Your task to perform on an android device: turn on data saver in the chrome app Image 0: 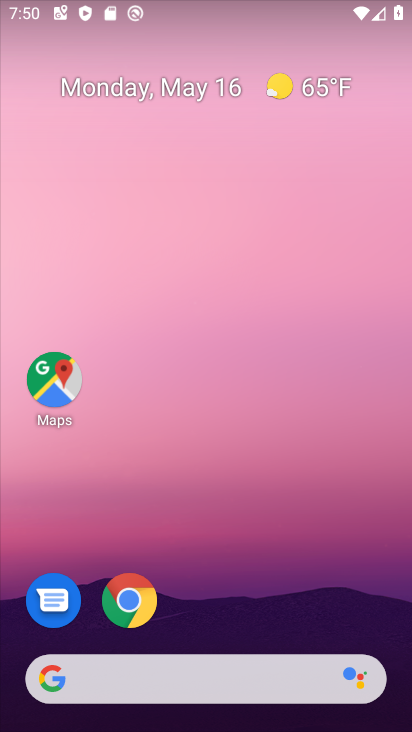
Step 0: drag from (183, 633) to (264, 144)
Your task to perform on an android device: turn on data saver in the chrome app Image 1: 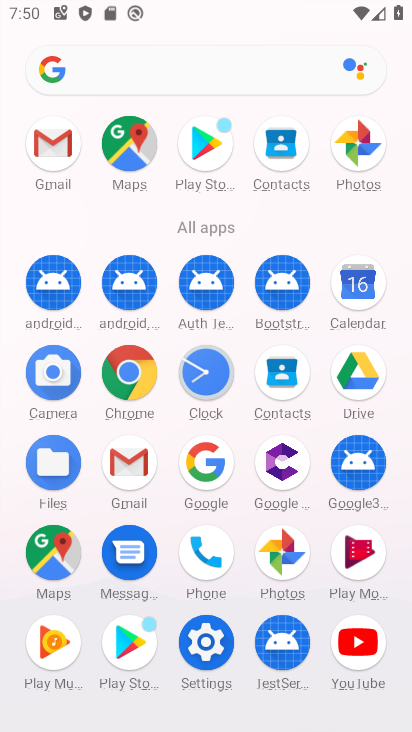
Step 1: click (120, 375)
Your task to perform on an android device: turn on data saver in the chrome app Image 2: 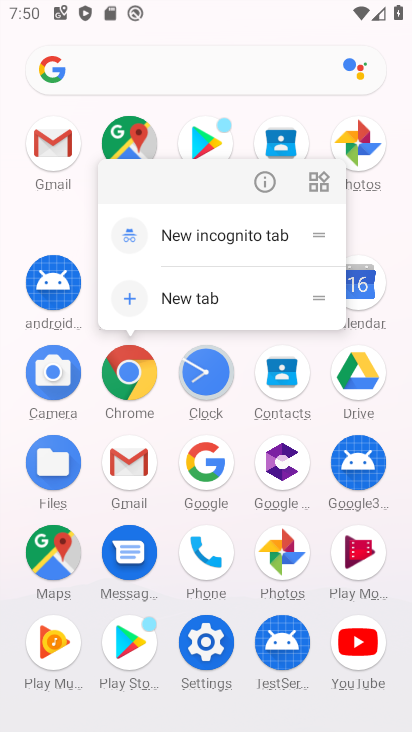
Step 2: click (266, 175)
Your task to perform on an android device: turn on data saver in the chrome app Image 3: 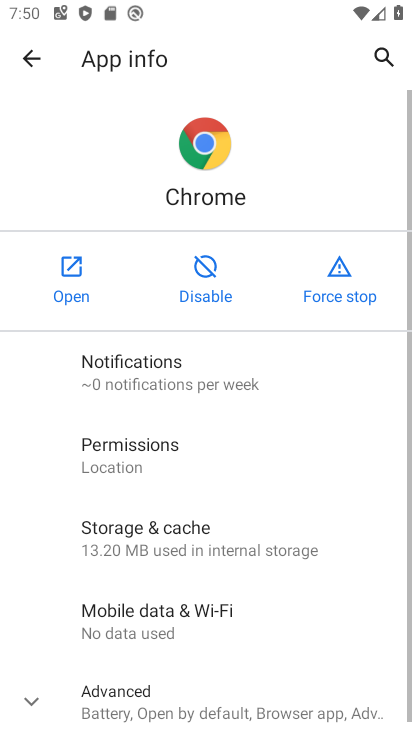
Step 3: click (82, 272)
Your task to perform on an android device: turn on data saver in the chrome app Image 4: 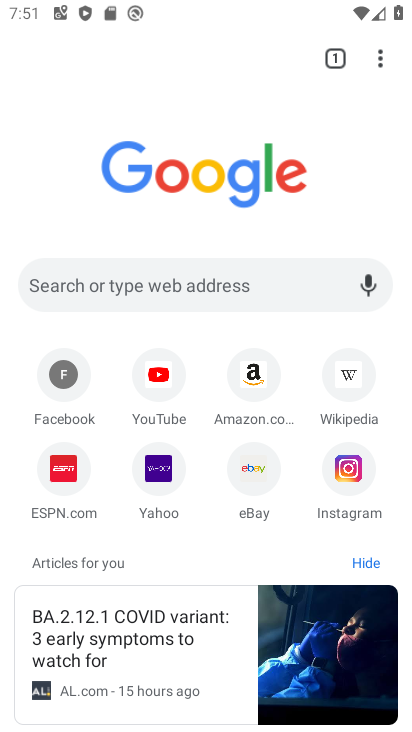
Step 4: click (381, 66)
Your task to perform on an android device: turn on data saver in the chrome app Image 5: 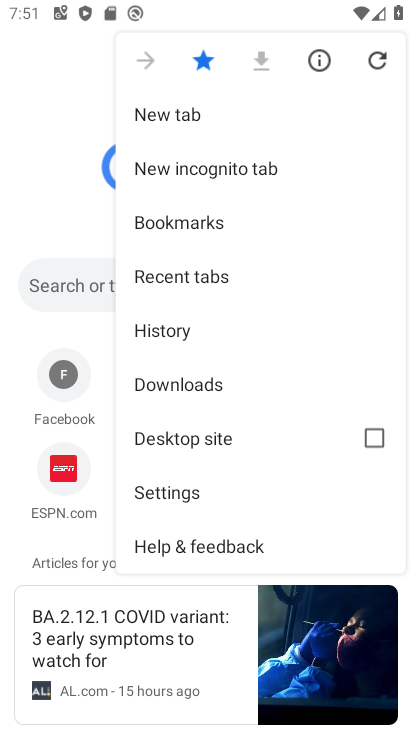
Step 5: click (238, 500)
Your task to perform on an android device: turn on data saver in the chrome app Image 6: 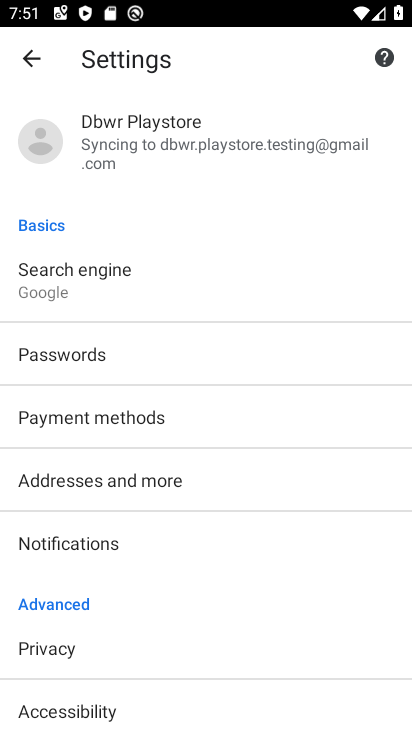
Step 6: drag from (220, 583) to (285, 70)
Your task to perform on an android device: turn on data saver in the chrome app Image 7: 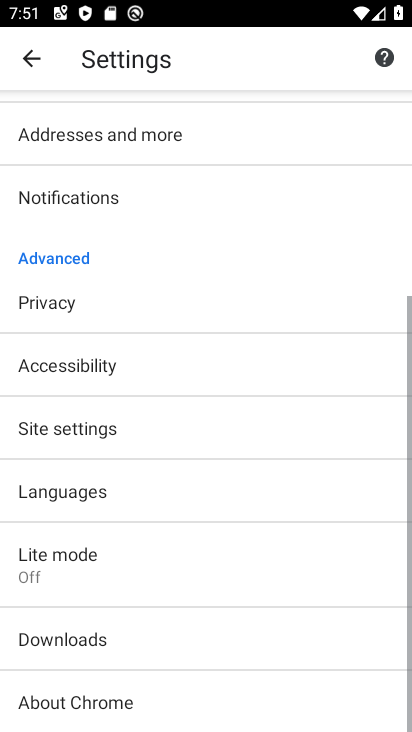
Step 7: drag from (172, 666) to (229, 278)
Your task to perform on an android device: turn on data saver in the chrome app Image 8: 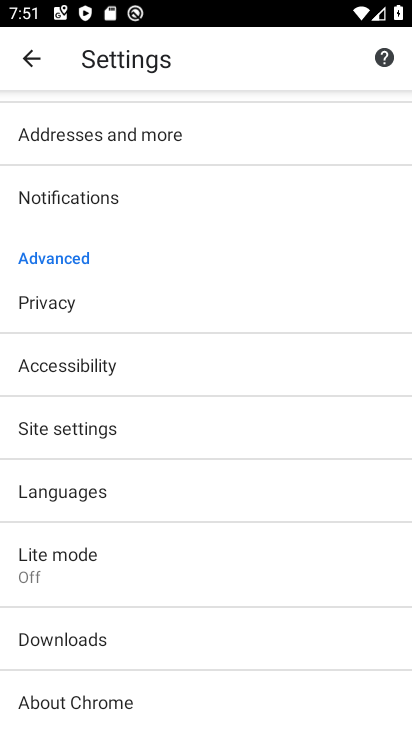
Step 8: click (117, 579)
Your task to perform on an android device: turn on data saver in the chrome app Image 9: 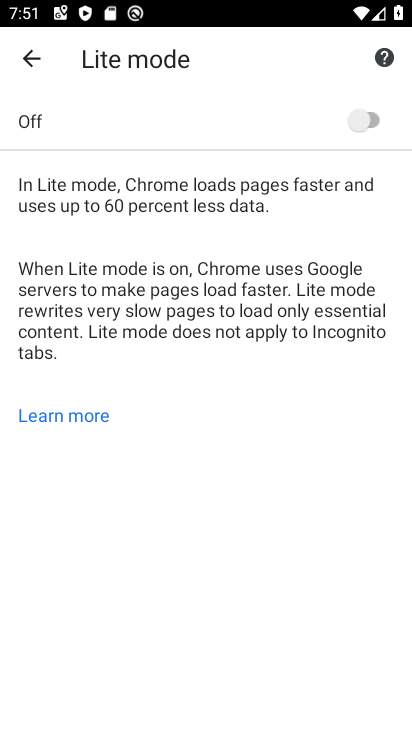
Step 9: click (337, 126)
Your task to perform on an android device: turn on data saver in the chrome app Image 10: 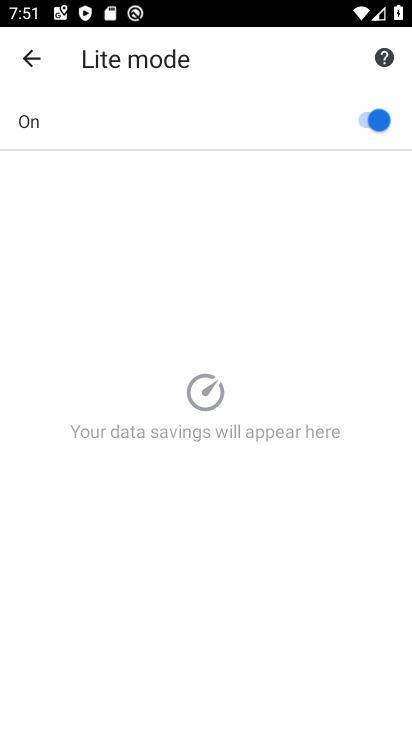
Step 10: task complete